Your task to perform on an android device: turn off improve location accuracy Image 0: 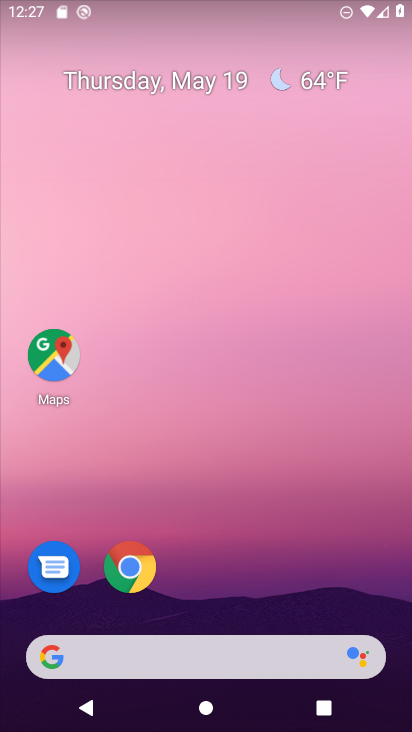
Step 0: drag from (224, 556) to (293, 81)
Your task to perform on an android device: turn off improve location accuracy Image 1: 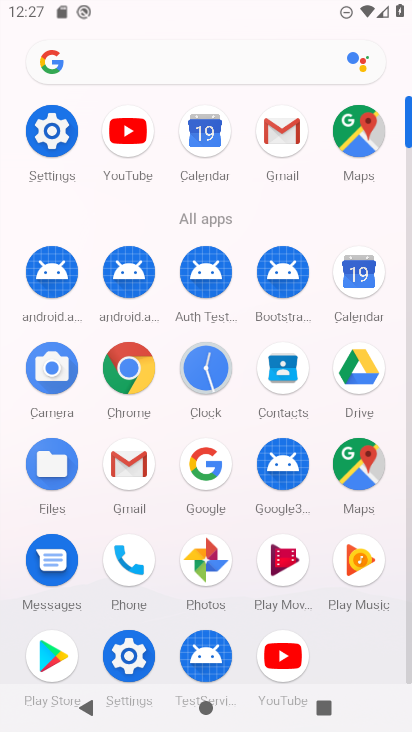
Step 1: click (37, 146)
Your task to perform on an android device: turn off improve location accuracy Image 2: 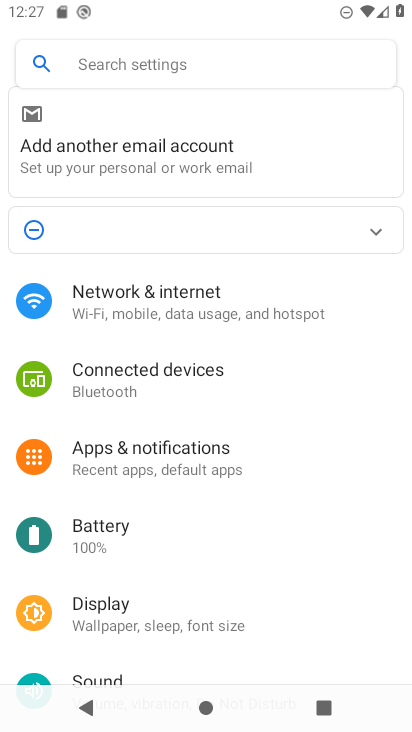
Step 2: drag from (146, 574) to (192, 195)
Your task to perform on an android device: turn off improve location accuracy Image 3: 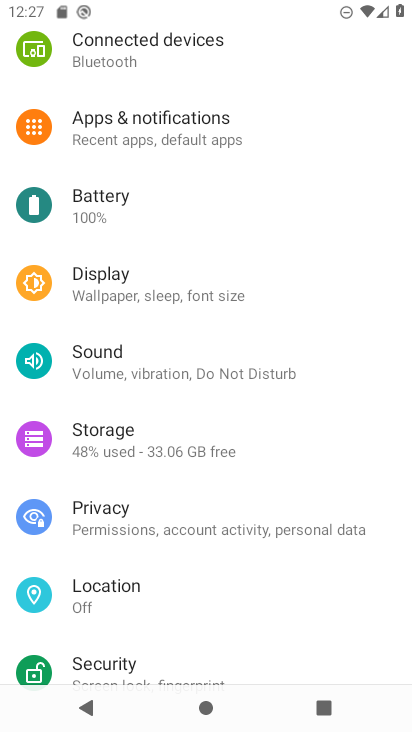
Step 3: click (152, 588)
Your task to perform on an android device: turn off improve location accuracy Image 4: 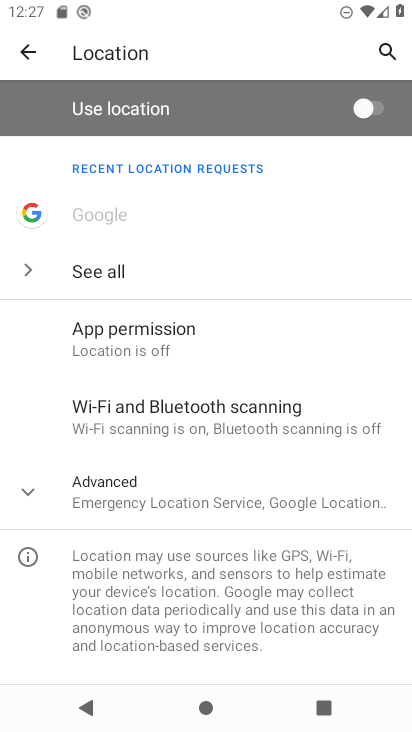
Step 4: click (33, 494)
Your task to perform on an android device: turn off improve location accuracy Image 5: 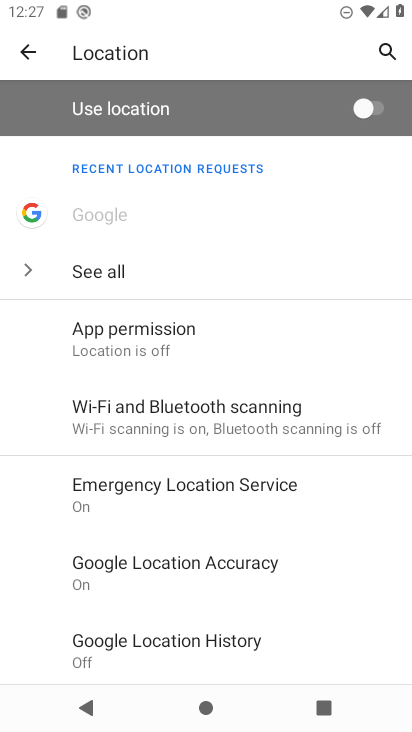
Step 5: click (195, 572)
Your task to perform on an android device: turn off improve location accuracy Image 6: 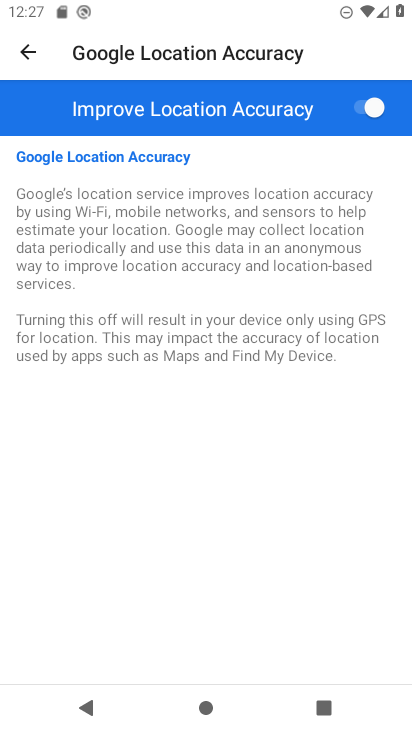
Step 6: click (385, 95)
Your task to perform on an android device: turn off improve location accuracy Image 7: 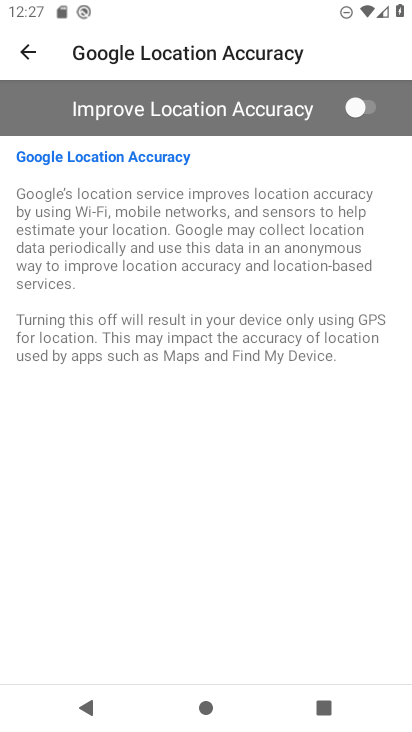
Step 7: click (377, 108)
Your task to perform on an android device: turn off improve location accuracy Image 8: 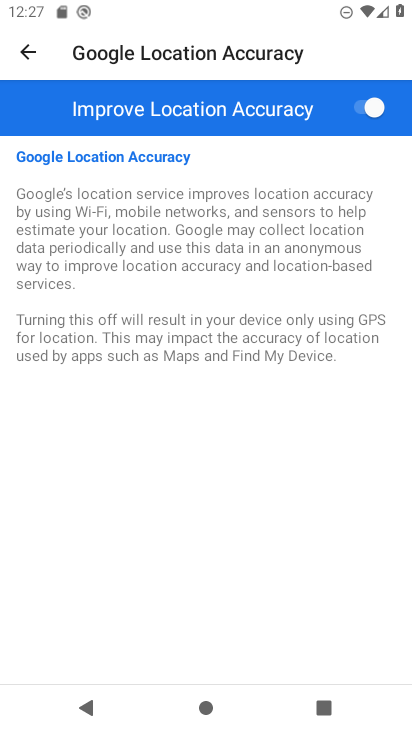
Step 8: task complete